Your task to perform on an android device: Go to Reddit.com Image 0: 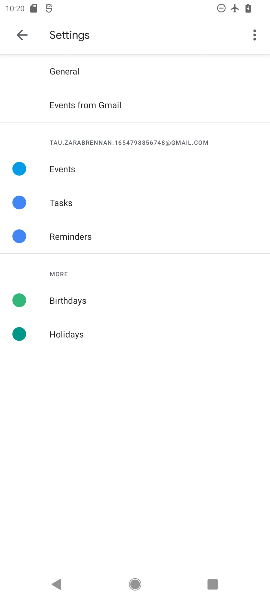
Step 0: press home button
Your task to perform on an android device: Go to Reddit.com Image 1: 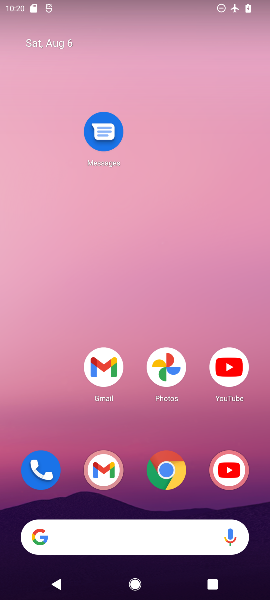
Step 1: click (170, 474)
Your task to perform on an android device: Go to Reddit.com Image 2: 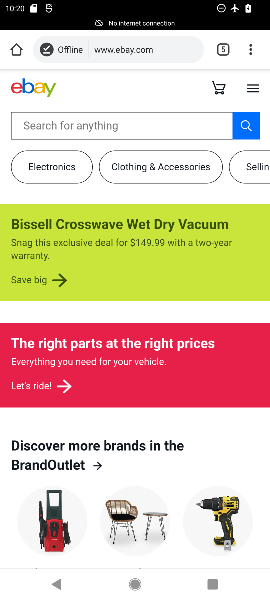
Step 2: click (144, 49)
Your task to perform on an android device: Go to Reddit.com Image 3: 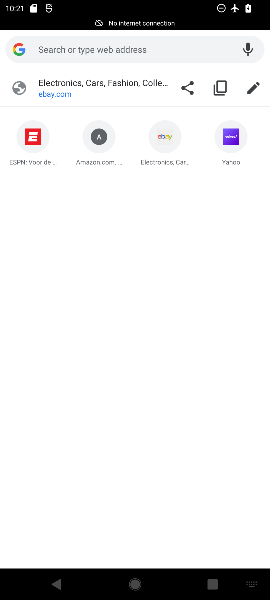
Step 3: type "reddit"
Your task to perform on an android device: Go to Reddit.com Image 4: 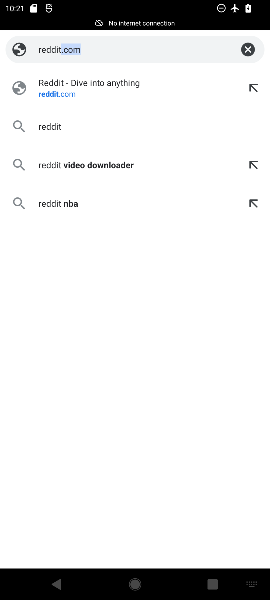
Step 4: click (121, 91)
Your task to perform on an android device: Go to Reddit.com Image 5: 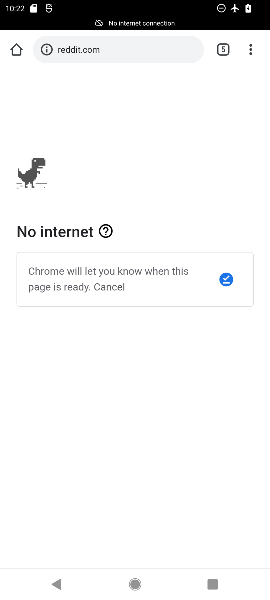
Step 5: task complete